Your task to perform on an android device: turn on translation in the chrome app Image 0: 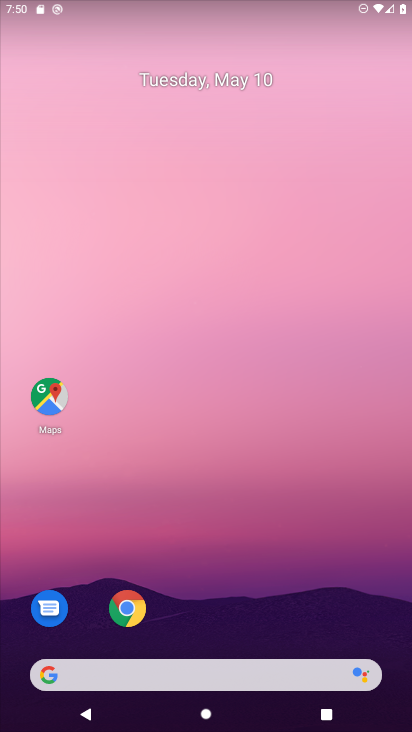
Step 0: drag from (264, 446) to (266, 292)
Your task to perform on an android device: turn on translation in the chrome app Image 1: 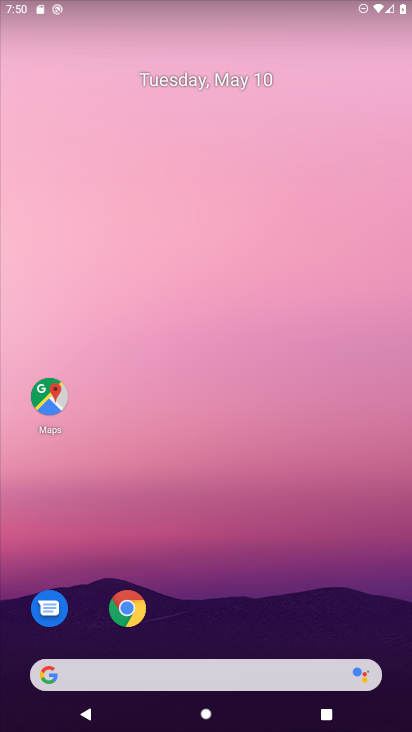
Step 1: drag from (289, 631) to (365, 241)
Your task to perform on an android device: turn on translation in the chrome app Image 2: 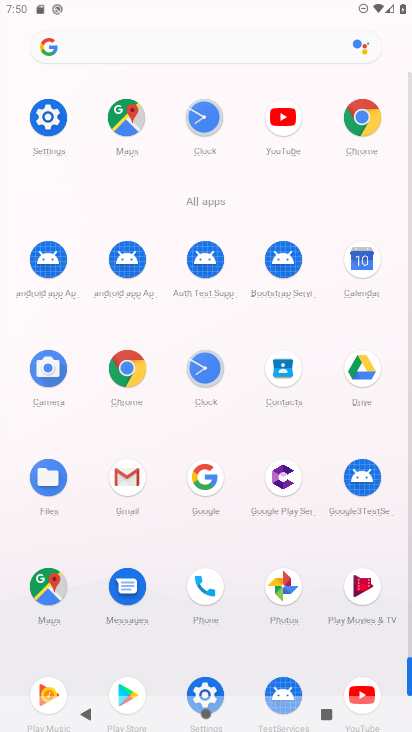
Step 2: click (121, 362)
Your task to perform on an android device: turn on translation in the chrome app Image 3: 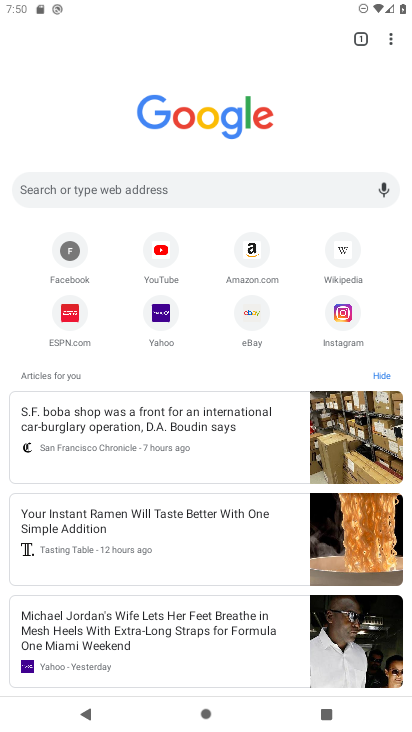
Step 3: click (381, 39)
Your task to perform on an android device: turn on translation in the chrome app Image 4: 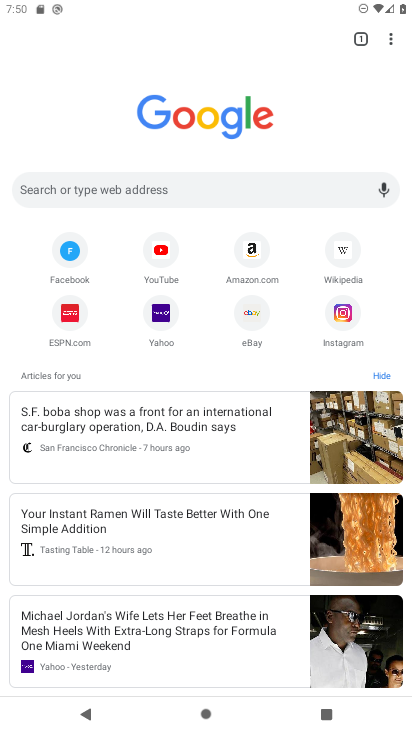
Step 4: click (381, 40)
Your task to perform on an android device: turn on translation in the chrome app Image 5: 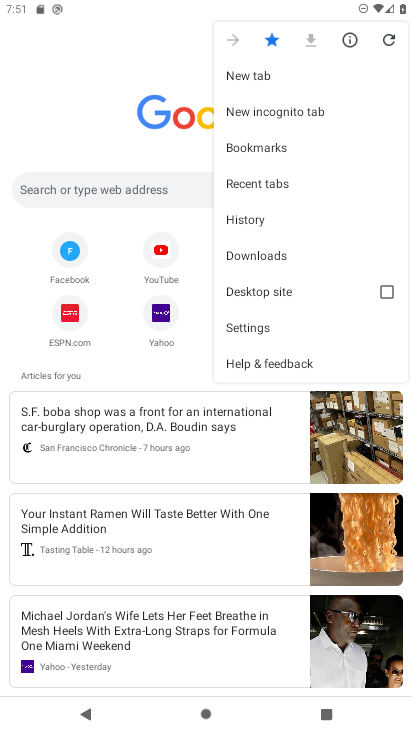
Step 5: click (270, 324)
Your task to perform on an android device: turn on translation in the chrome app Image 6: 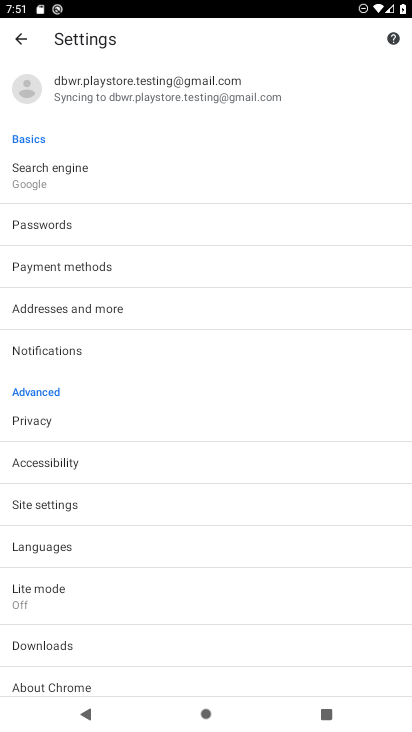
Step 6: click (73, 547)
Your task to perform on an android device: turn on translation in the chrome app Image 7: 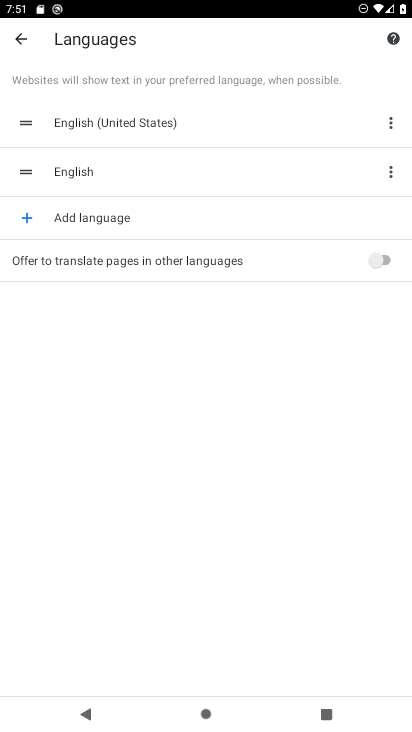
Step 7: click (383, 261)
Your task to perform on an android device: turn on translation in the chrome app Image 8: 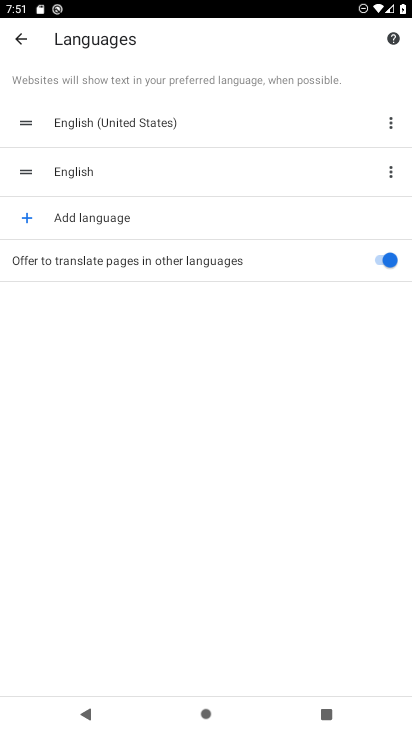
Step 8: task complete